Your task to perform on an android device: allow notifications from all sites in the chrome app Image 0: 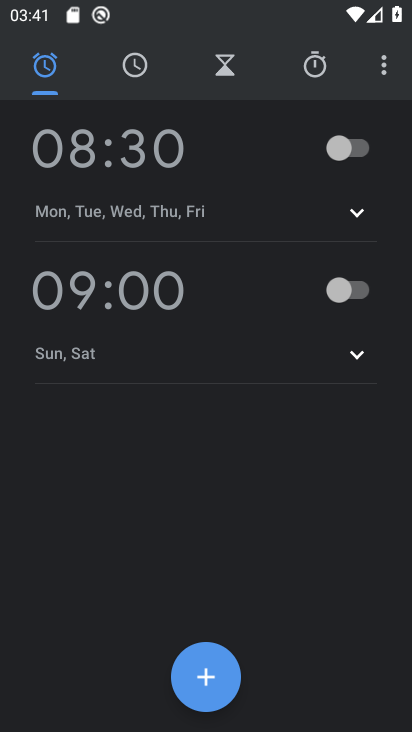
Step 0: press home button
Your task to perform on an android device: allow notifications from all sites in the chrome app Image 1: 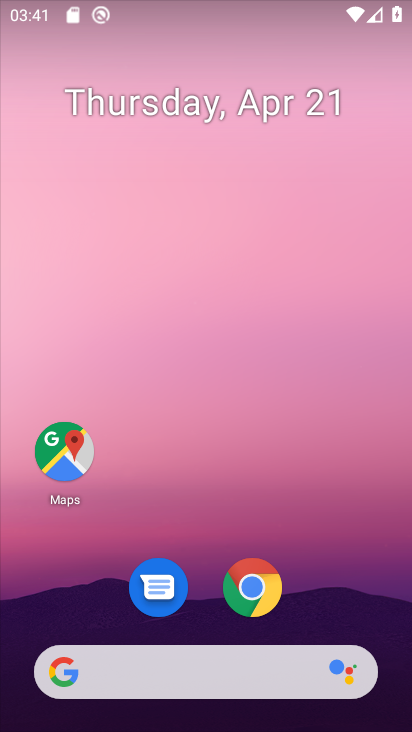
Step 1: drag from (348, 590) to (343, 142)
Your task to perform on an android device: allow notifications from all sites in the chrome app Image 2: 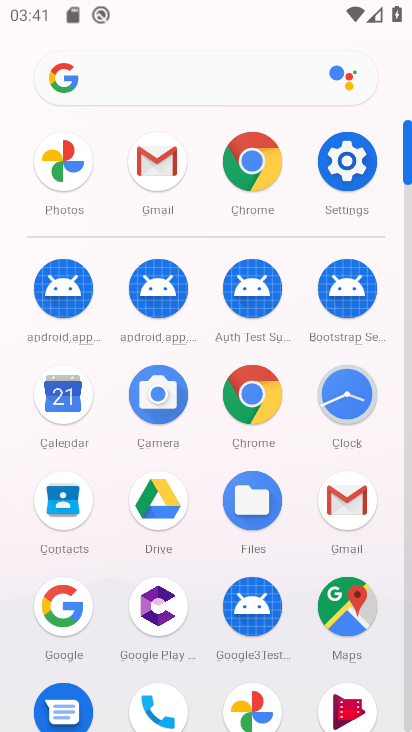
Step 2: click (262, 408)
Your task to perform on an android device: allow notifications from all sites in the chrome app Image 3: 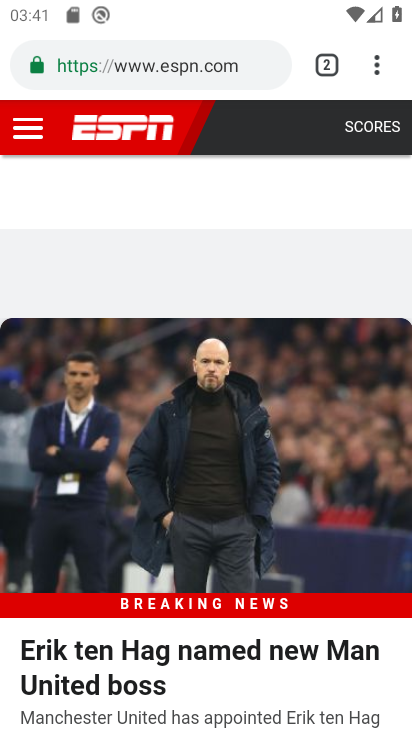
Step 3: click (377, 66)
Your task to perform on an android device: allow notifications from all sites in the chrome app Image 4: 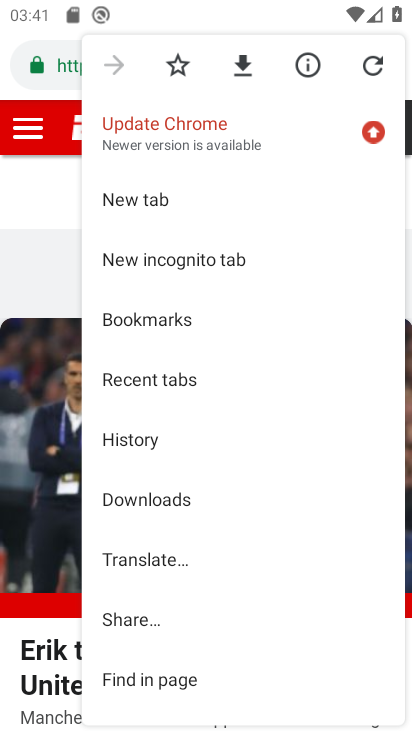
Step 4: drag from (288, 542) to (289, 462)
Your task to perform on an android device: allow notifications from all sites in the chrome app Image 5: 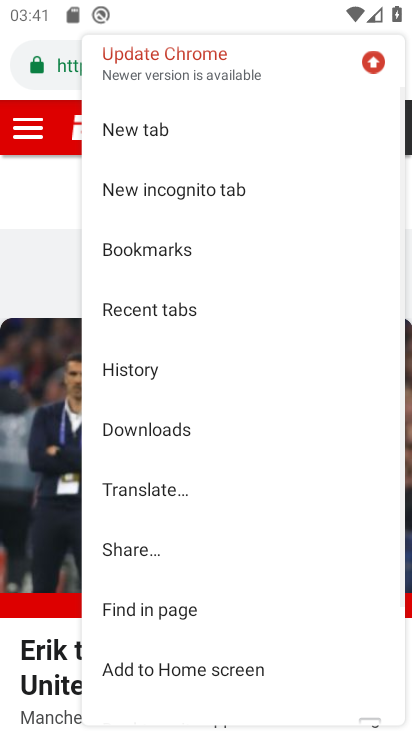
Step 5: drag from (303, 591) to (303, 478)
Your task to perform on an android device: allow notifications from all sites in the chrome app Image 6: 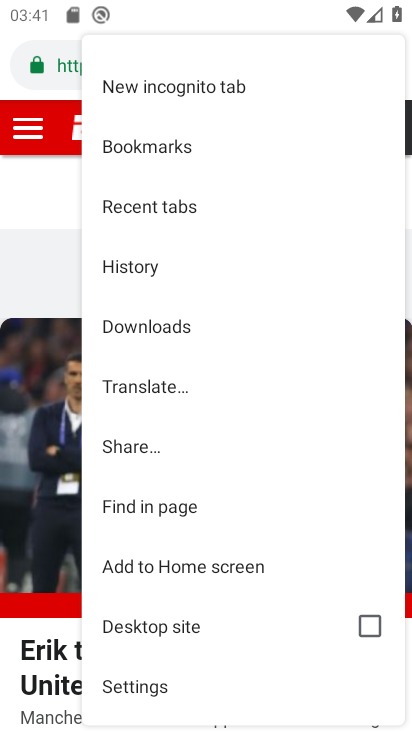
Step 6: drag from (295, 625) to (294, 514)
Your task to perform on an android device: allow notifications from all sites in the chrome app Image 7: 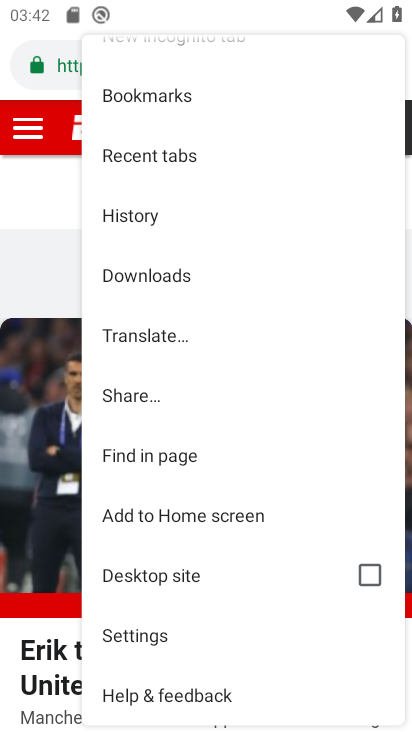
Step 7: click (167, 639)
Your task to perform on an android device: allow notifications from all sites in the chrome app Image 8: 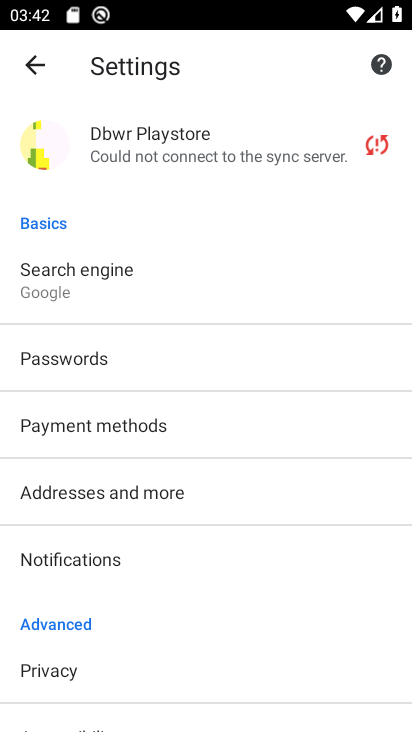
Step 8: drag from (293, 609) to (305, 536)
Your task to perform on an android device: allow notifications from all sites in the chrome app Image 9: 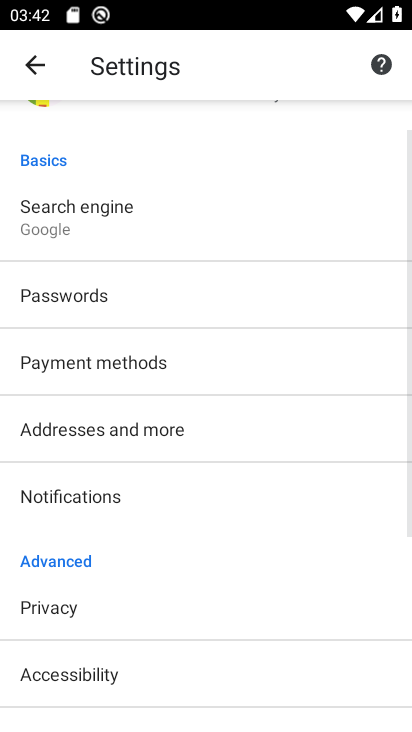
Step 9: drag from (298, 633) to (298, 520)
Your task to perform on an android device: allow notifications from all sites in the chrome app Image 10: 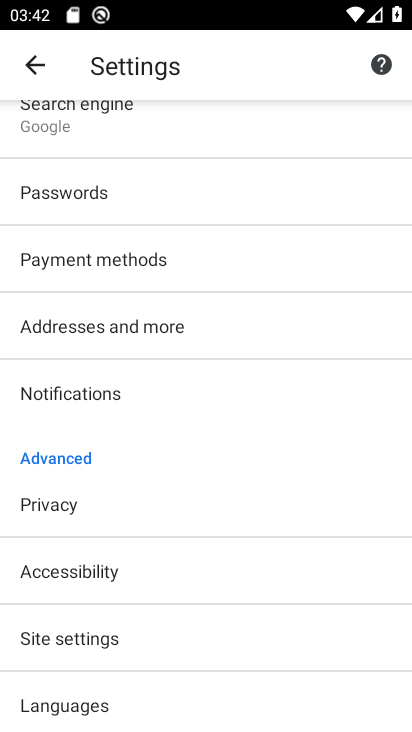
Step 10: drag from (290, 633) to (297, 522)
Your task to perform on an android device: allow notifications from all sites in the chrome app Image 11: 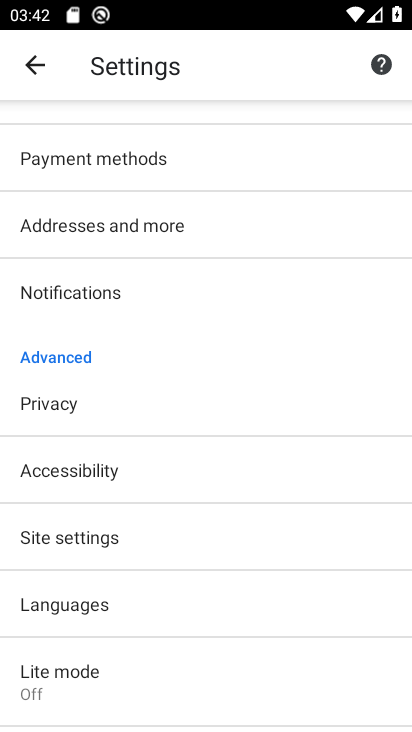
Step 11: drag from (294, 665) to (304, 555)
Your task to perform on an android device: allow notifications from all sites in the chrome app Image 12: 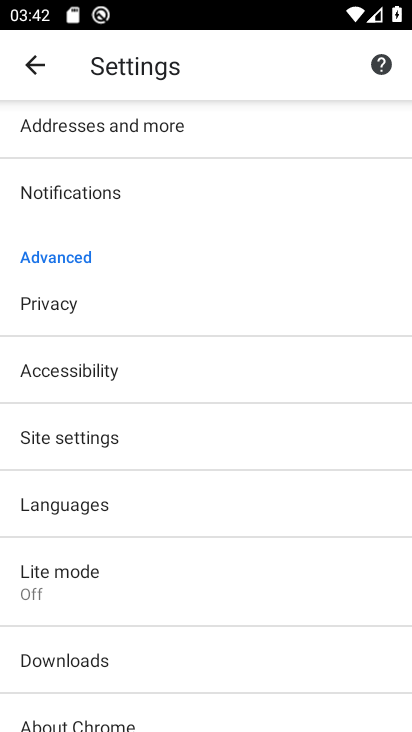
Step 12: drag from (301, 664) to (307, 565)
Your task to perform on an android device: allow notifications from all sites in the chrome app Image 13: 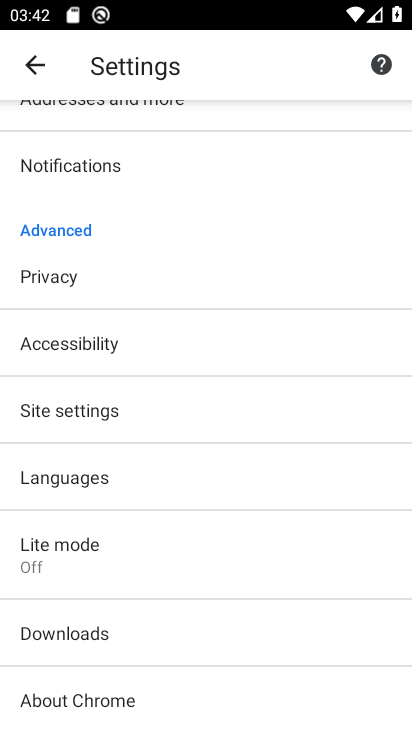
Step 13: drag from (292, 678) to (285, 553)
Your task to perform on an android device: allow notifications from all sites in the chrome app Image 14: 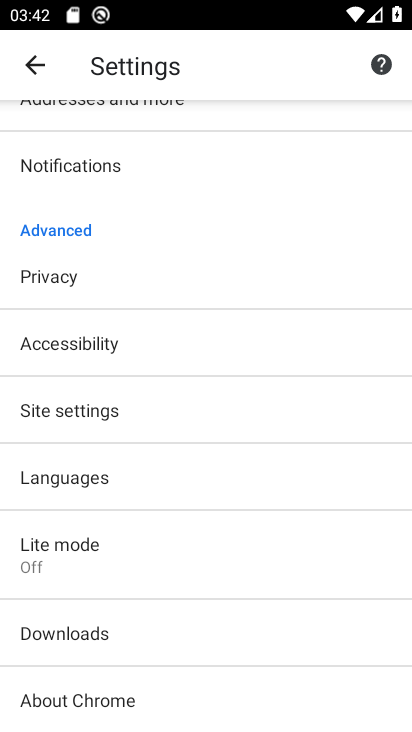
Step 14: drag from (296, 359) to (306, 473)
Your task to perform on an android device: allow notifications from all sites in the chrome app Image 15: 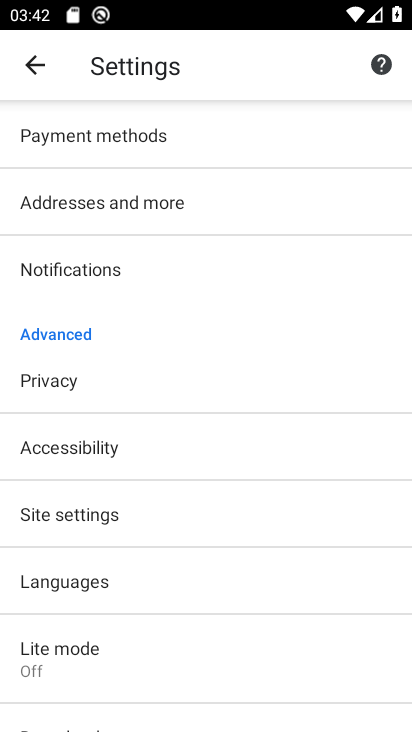
Step 15: drag from (294, 305) to (289, 452)
Your task to perform on an android device: allow notifications from all sites in the chrome app Image 16: 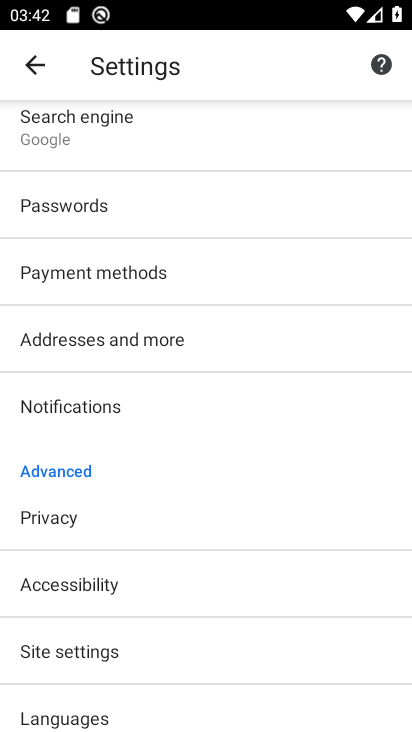
Step 16: drag from (252, 633) to (254, 492)
Your task to perform on an android device: allow notifications from all sites in the chrome app Image 17: 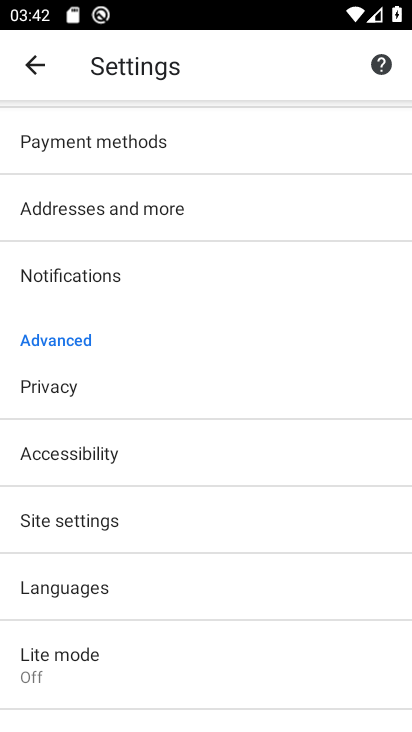
Step 17: click (241, 516)
Your task to perform on an android device: allow notifications from all sites in the chrome app Image 18: 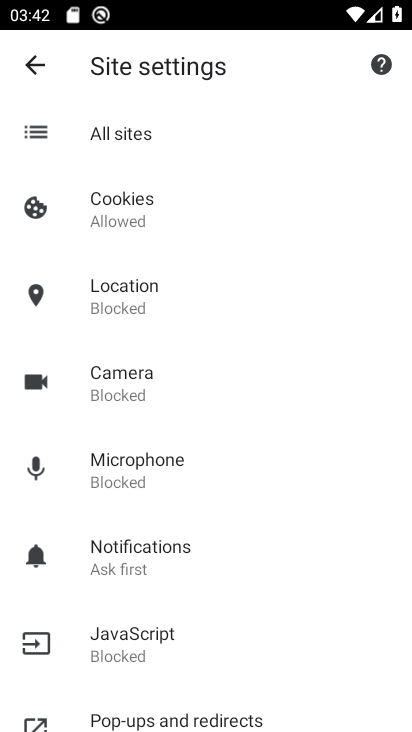
Step 18: drag from (286, 525) to (294, 440)
Your task to perform on an android device: allow notifications from all sites in the chrome app Image 19: 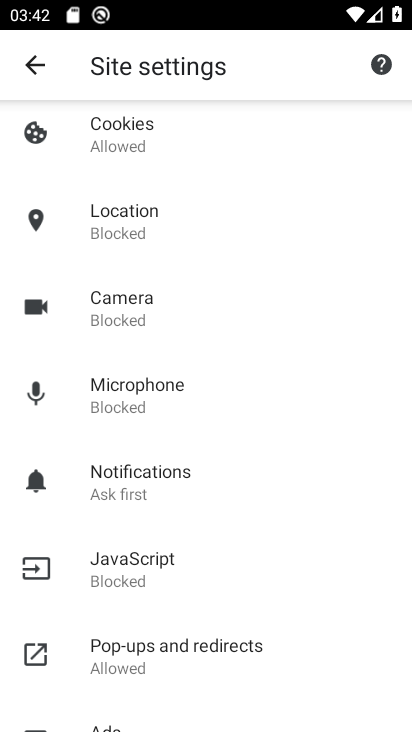
Step 19: drag from (296, 533) to (301, 442)
Your task to perform on an android device: allow notifications from all sites in the chrome app Image 20: 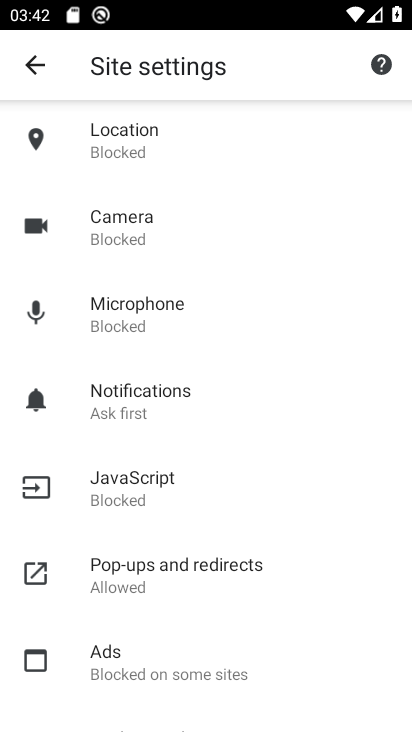
Step 20: click (143, 390)
Your task to perform on an android device: allow notifications from all sites in the chrome app Image 21: 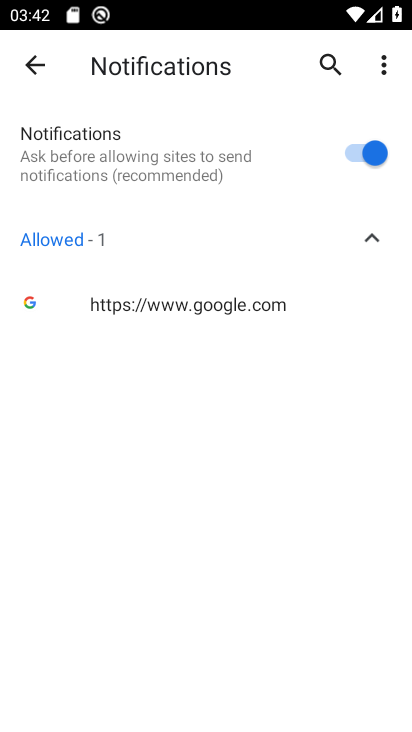
Step 21: task complete